Your task to perform on an android device: Open Amazon Image 0: 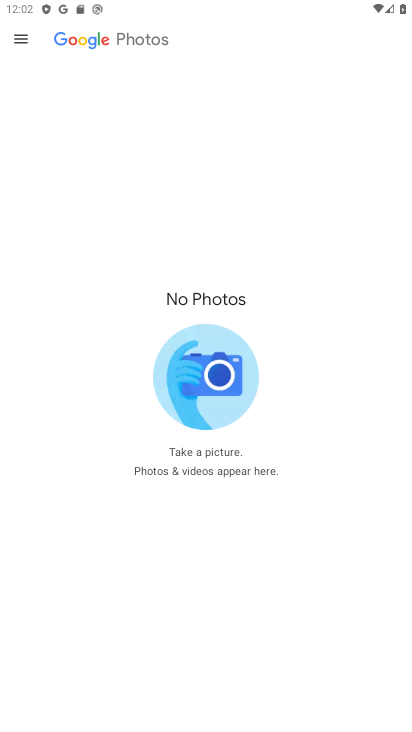
Step 0: press home button
Your task to perform on an android device: Open Amazon Image 1: 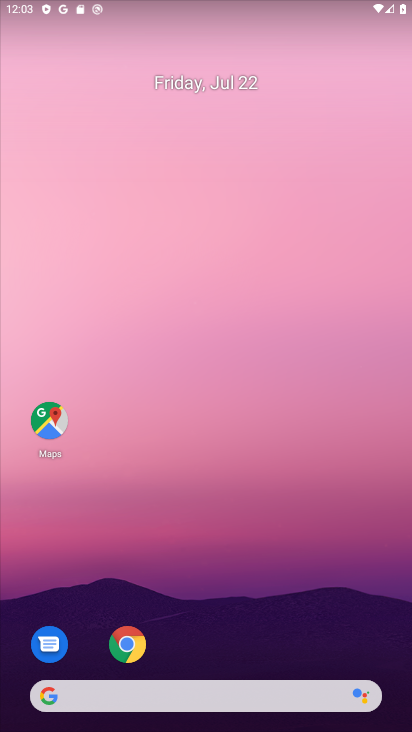
Step 1: drag from (305, 640) to (223, 179)
Your task to perform on an android device: Open Amazon Image 2: 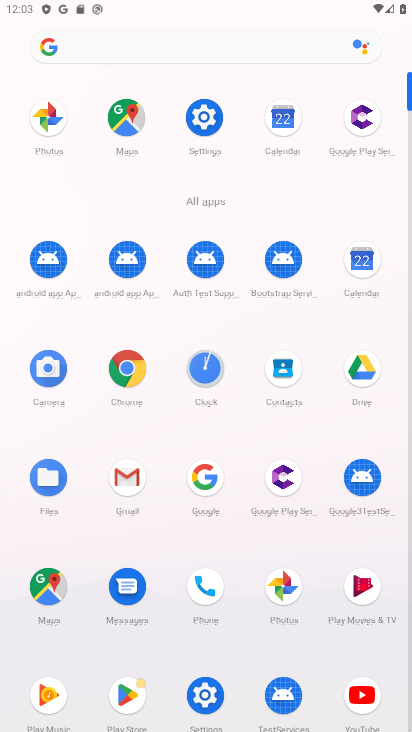
Step 2: click (114, 369)
Your task to perform on an android device: Open Amazon Image 3: 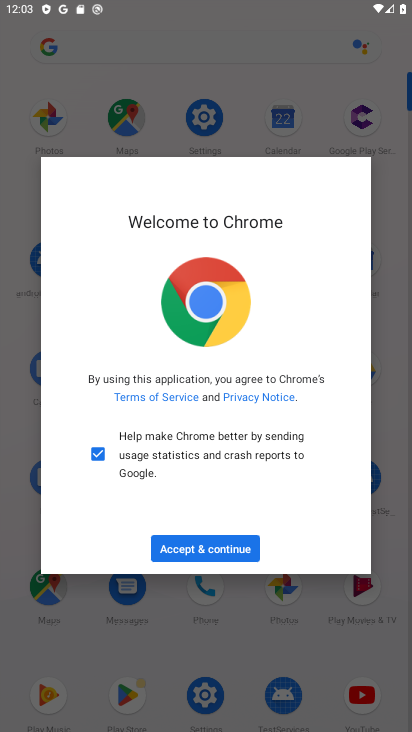
Step 3: click (230, 536)
Your task to perform on an android device: Open Amazon Image 4: 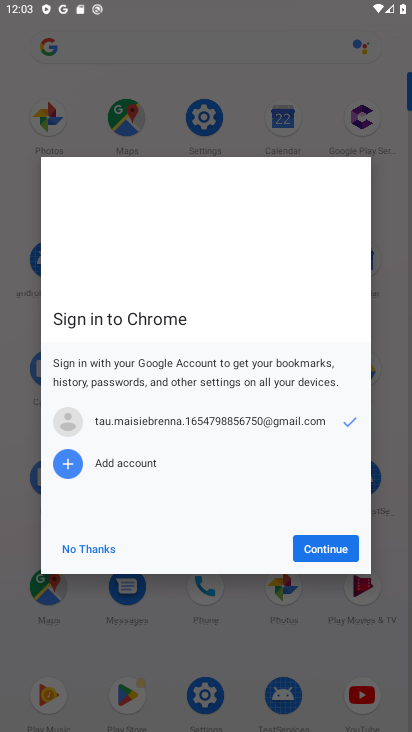
Step 4: click (334, 541)
Your task to perform on an android device: Open Amazon Image 5: 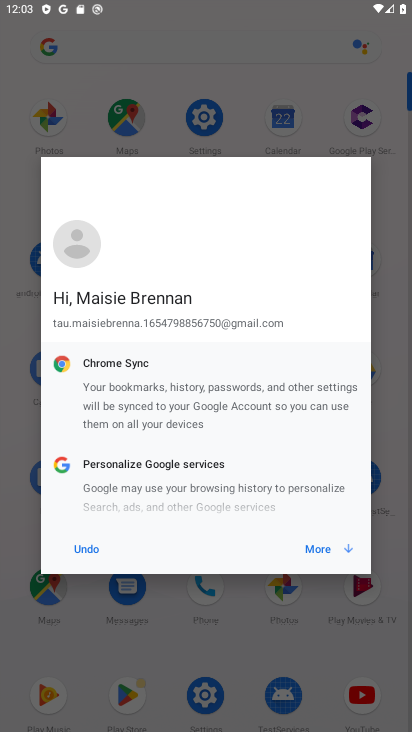
Step 5: click (334, 541)
Your task to perform on an android device: Open Amazon Image 6: 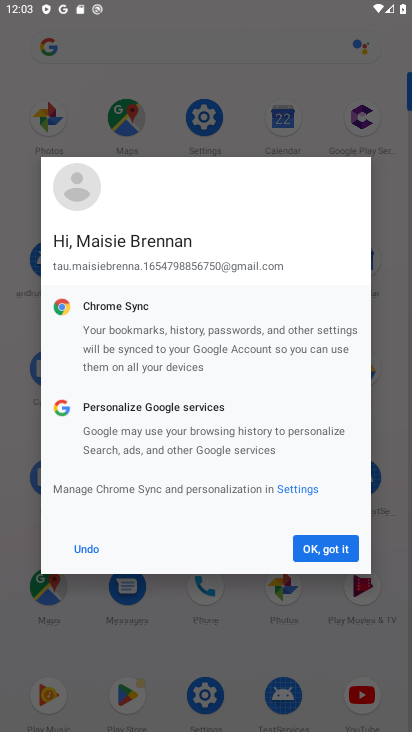
Step 6: click (334, 541)
Your task to perform on an android device: Open Amazon Image 7: 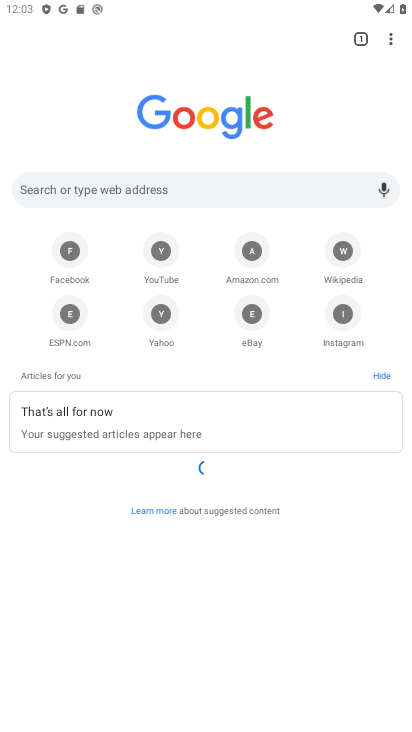
Step 7: click (259, 255)
Your task to perform on an android device: Open Amazon Image 8: 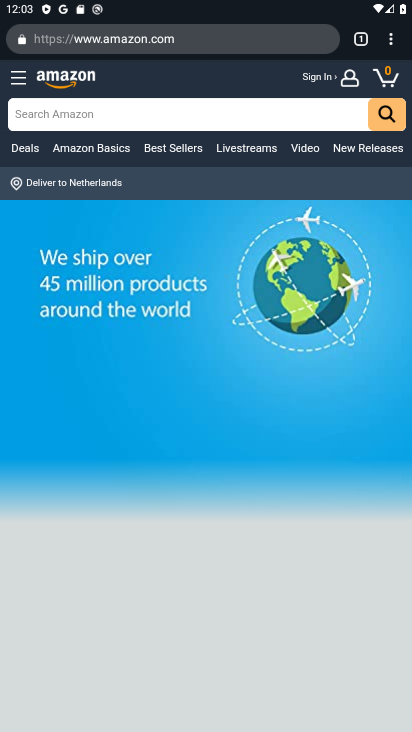
Step 8: task complete